Your task to perform on an android device: turn notification dots on Image 0: 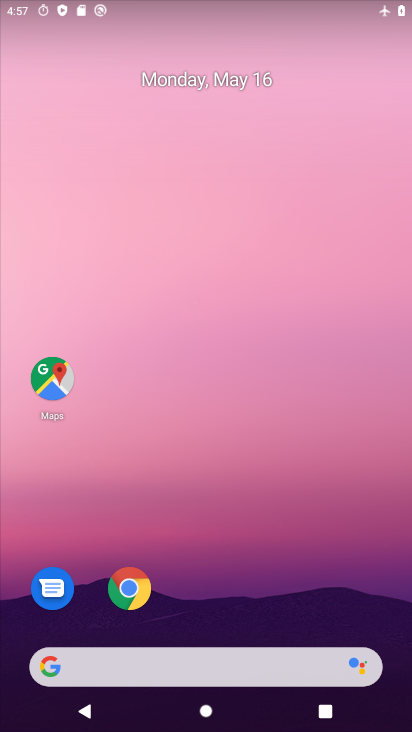
Step 0: drag from (226, 602) to (208, 19)
Your task to perform on an android device: turn notification dots on Image 1: 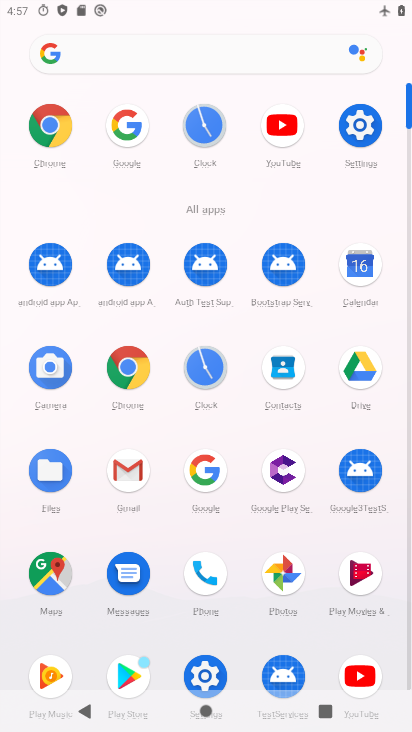
Step 1: click (356, 140)
Your task to perform on an android device: turn notification dots on Image 2: 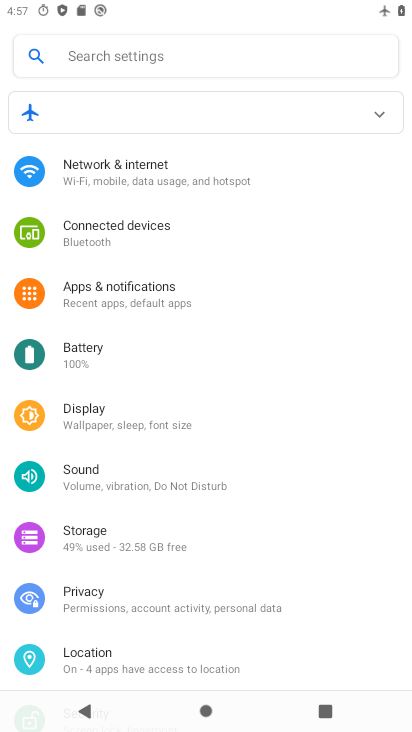
Step 2: click (285, 292)
Your task to perform on an android device: turn notification dots on Image 3: 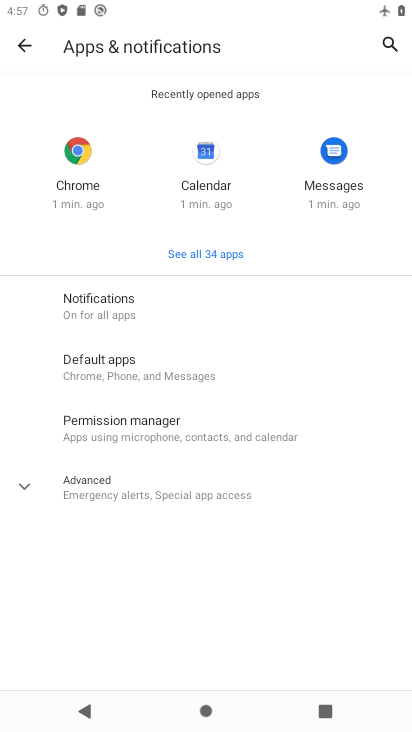
Step 3: click (281, 320)
Your task to perform on an android device: turn notification dots on Image 4: 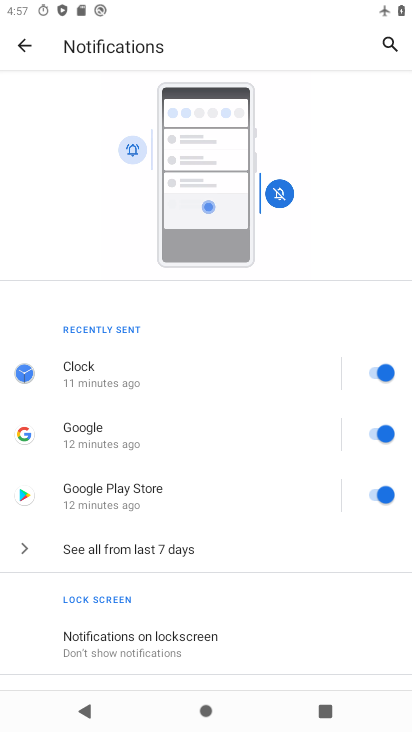
Step 4: drag from (266, 626) to (241, 152)
Your task to perform on an android device: turn notification dots on Image 5: 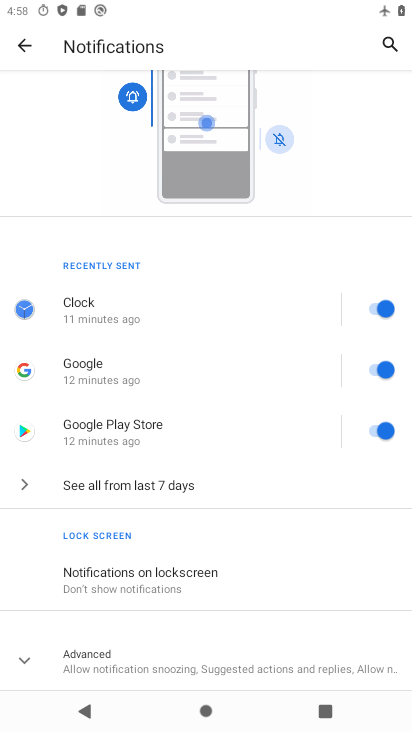
Step 5: click (221, 647)
Your task to perform on an android device: turn notification dots on Image 6: 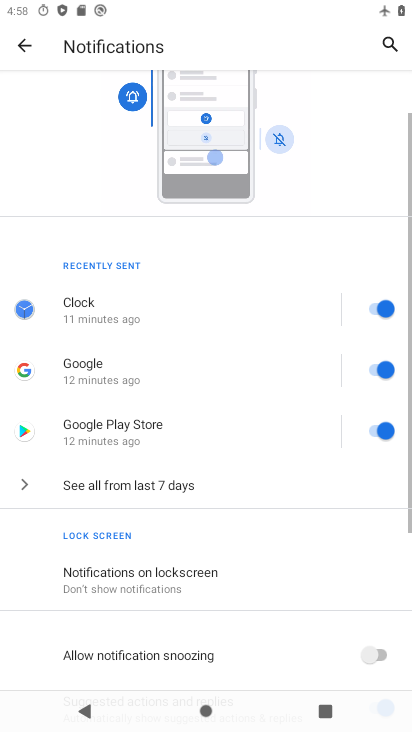
Step 6: task complete